Your task to perform on an android device: open sync settings in chrome Image 0: 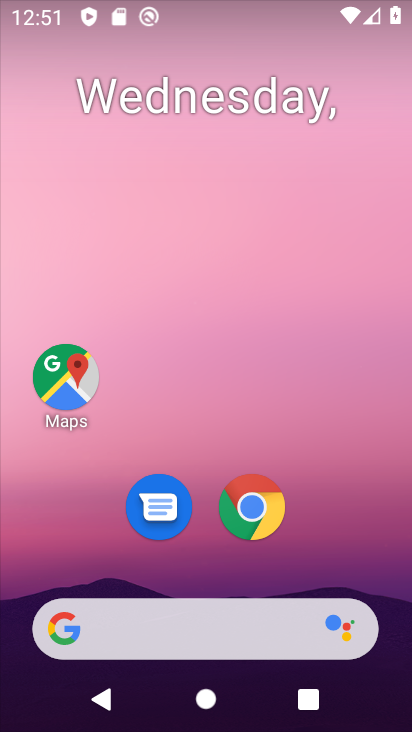
Step 0: press home button
Your task to perform on an android device: open sync settings in chrome Image 1: 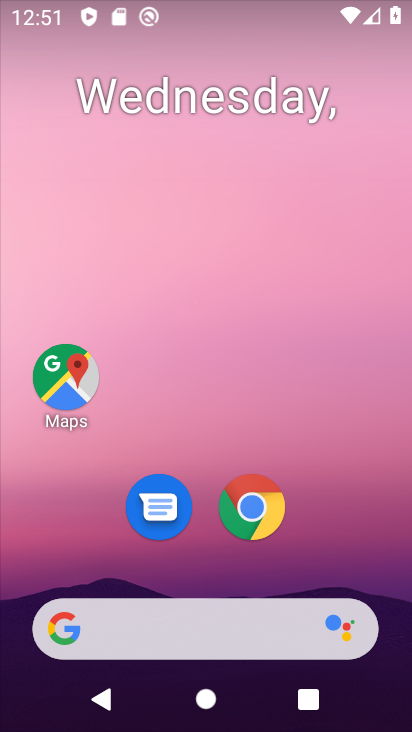
Step 1: click (252, 520)
Your task to perform on an android device: open sync settings in chrome Image 2: 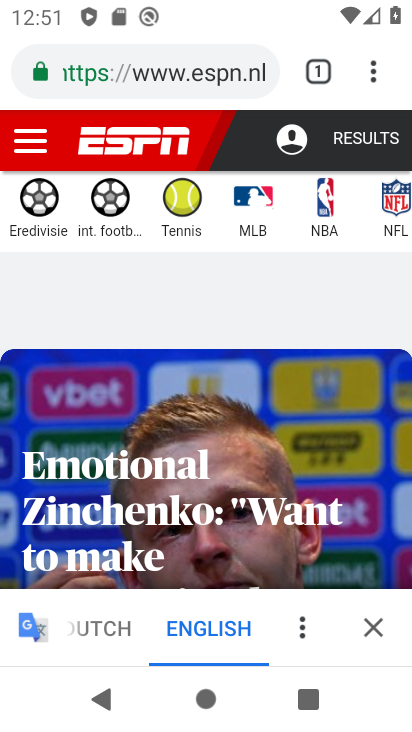
Step 2: drag from (371, 74) to (239, 502)
Your task to perform on an android device: open sync settings in chrome Image 3: 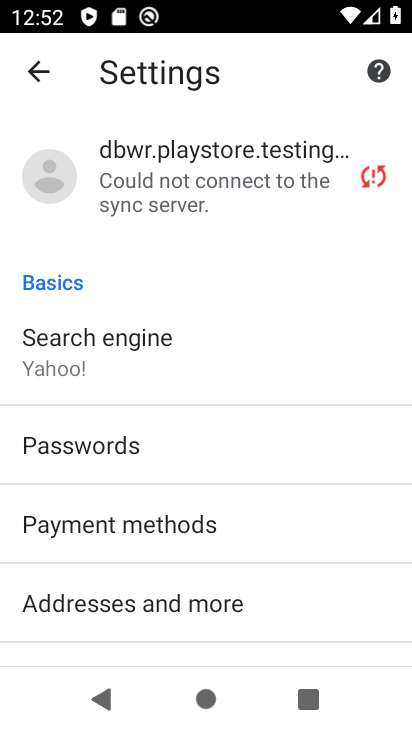
Step 3: click (211, 171)
Your task to perform on an android device: open sync settings in chrome Image 4: 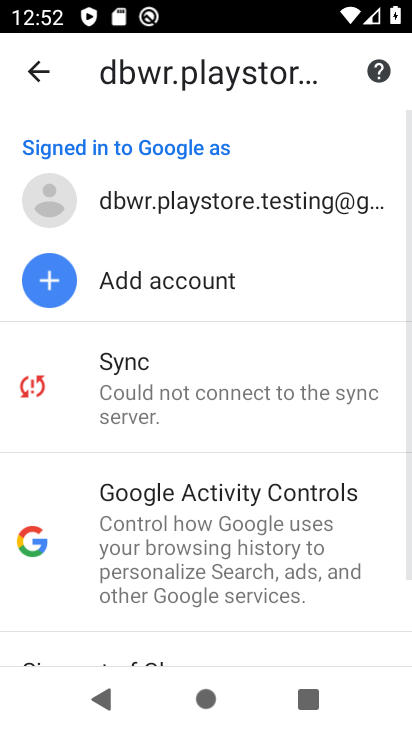
Step 4: click (165, 369)
Your task to perform on an android device: open sync settings in chrome Image 5: 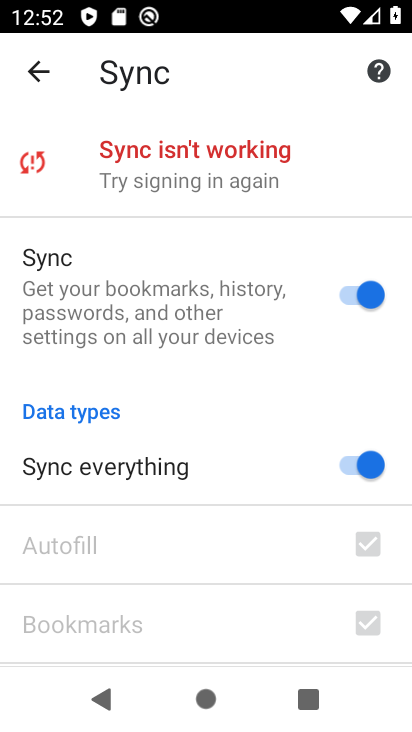
Step 5: task complete